Your task to perform on an android device: turn on notifications settings in the gmail app Image 0: 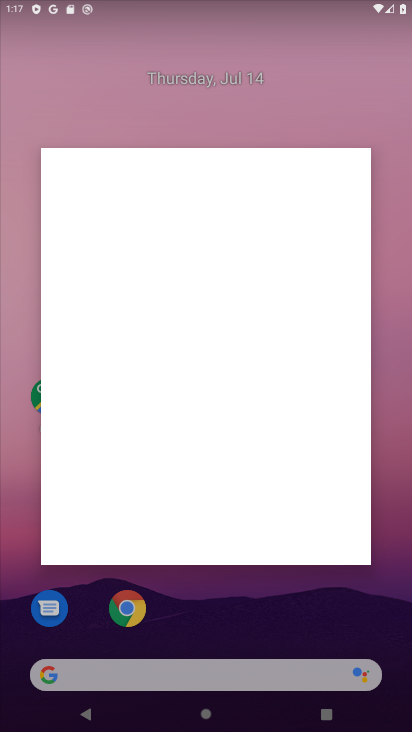
Step 0: press home button
Your task to perform on an android device: turn on notifications settings in the gmail app Image 1: 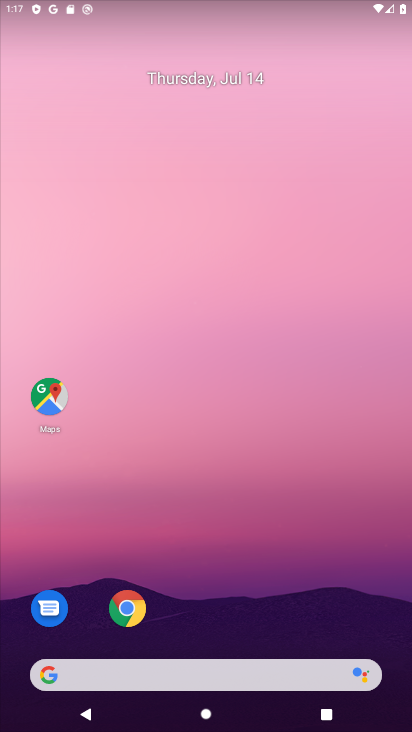
Step 1: drag from (257, 699) to (305, 316)
Your task to perform on an android device: turn on notifications settings in the gmail app Image 2: 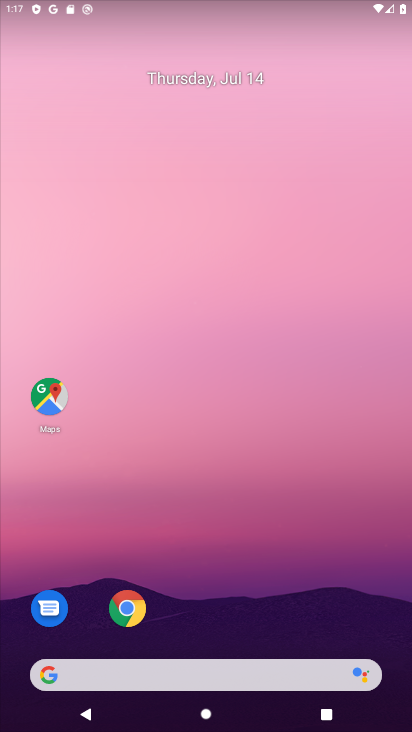
Step 2: drag from (245, 689) to (229, 385)
Your task to perform on an android device: turn on notifications settings in the gmail app Image 3: 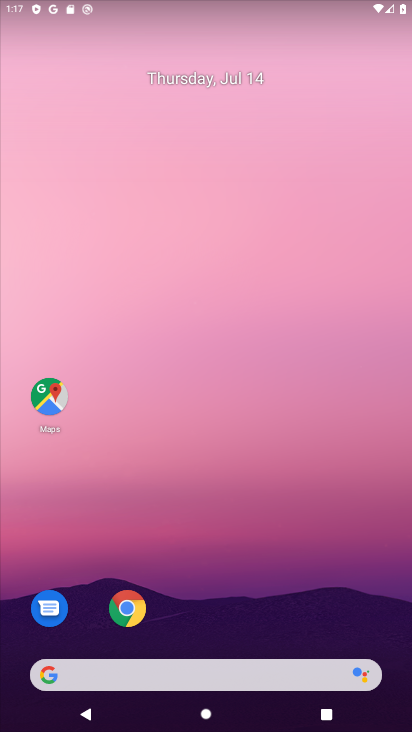
Step 3: drag from (232, 622) to (380, 214)
Your task to perform on an android device: turn on notifications settings in the gmail app Image 4: 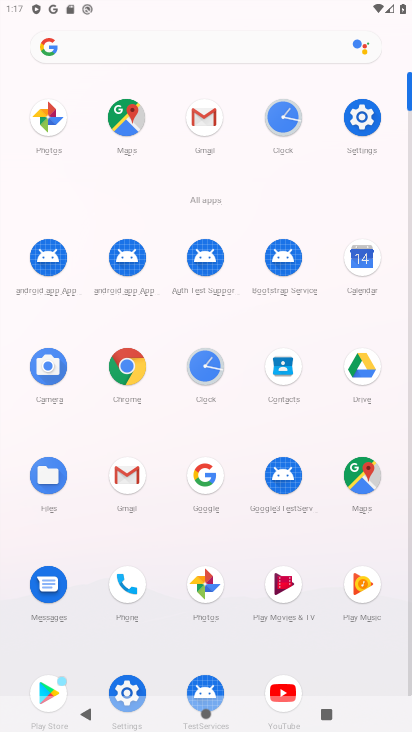
Step 4: click (126, 475)
Your task to perform on an android device: turn on notifications settings in the gmail app Image 5: 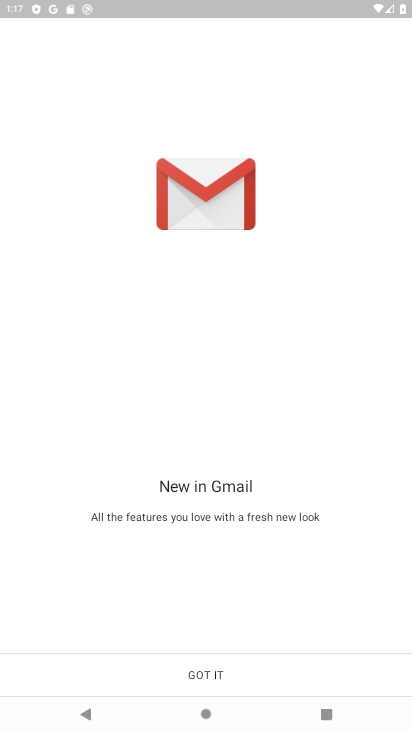
Step 5: click (177, 672)
Your task to perform on an android device: turn on notifications settings in the gmail app Image 6: 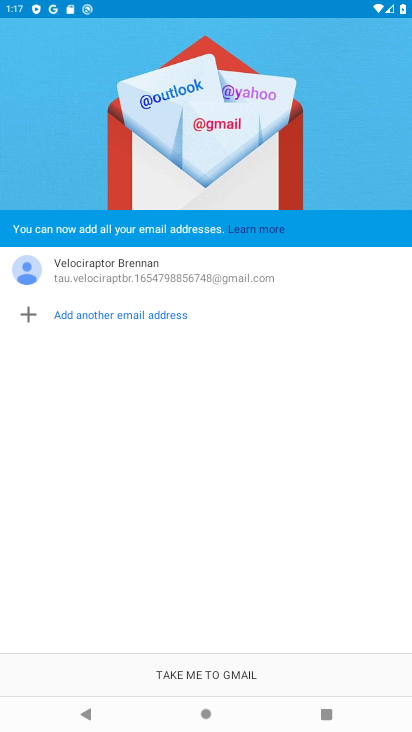
Step 6: click (189, 666)
Your task to perform on an android device: turn on notifications settings in the gmail app Image 7: 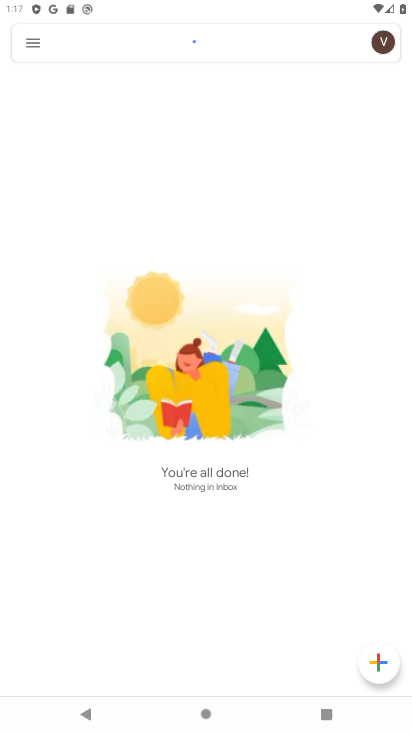
Step 7: click (21, 41)
Your task to perform on an android device: turn on notifications settings in the gmail app Image 8: 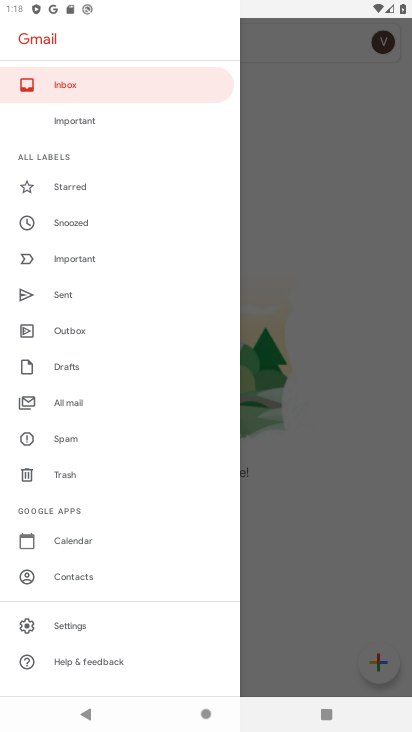
Step 8: click (69, 622)
Your task to perform on an android device: turn on notifications settings in the gmail app Image 9: 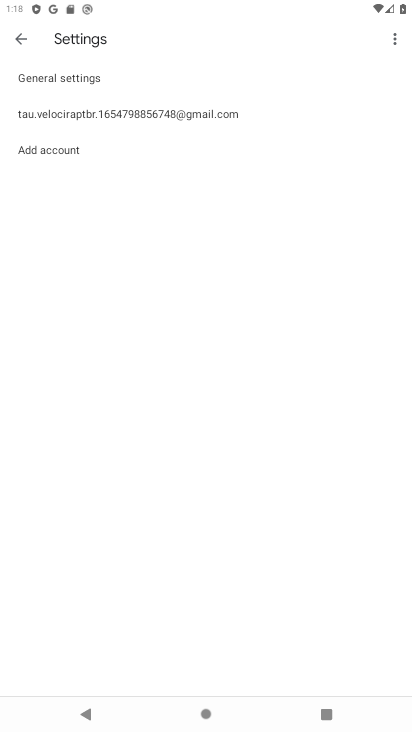
Step 9: click (105, 105)
Your task to perform on an android device: turn on notifications settings in the gmail app Image 10: 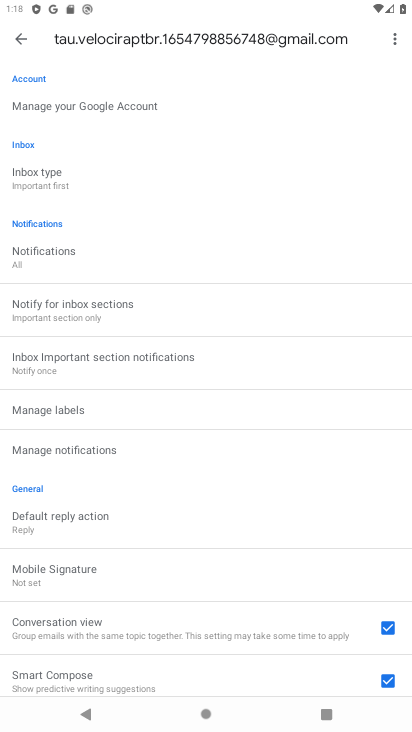
Step 10: click (33, 266)
Your task to perform on an android device: turn on notifications settings in the gmail app Image 11: 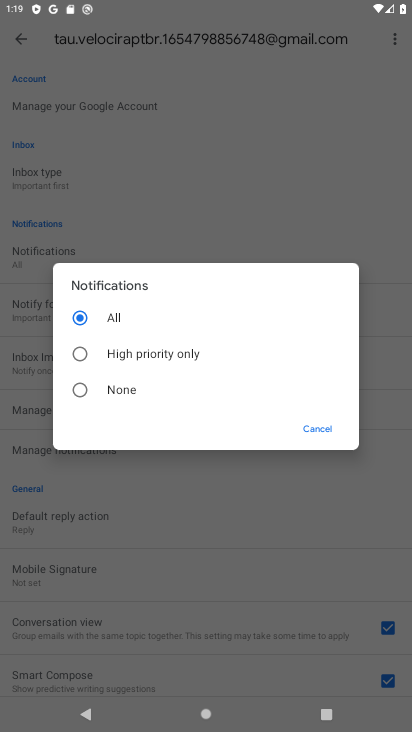
Step 11: task complete